Your task to perform on an android device: star an email in the gmail app Image 0: 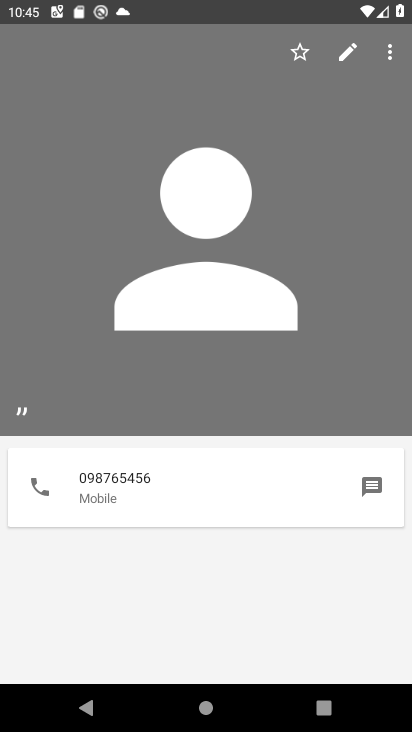
Step 0: press home button
Your task to perform on an android device: star an email in the gmail app Image 1: 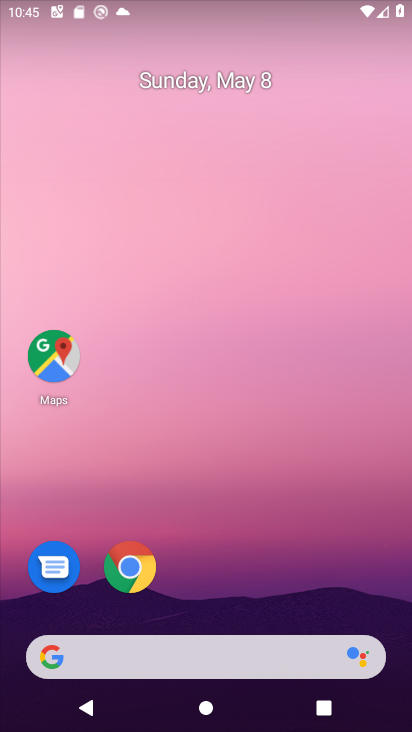
Step 1: drag from (255, 583) to (227, 197)
Your task to perform on an android device: star an email in the gmail app Image 2: 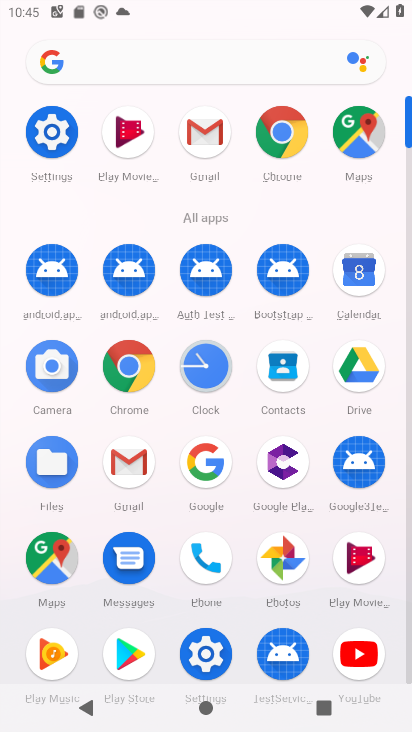
Step 2: click (200, 166)
Your task to perform on an android device: star an email in the gmail app Image 3: 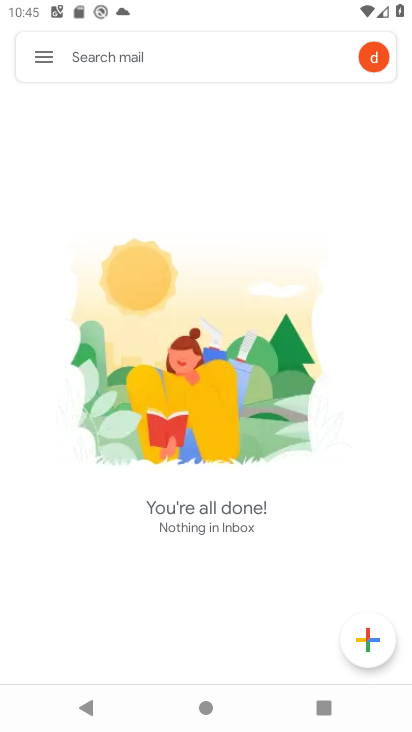
Step 3: click (41, 63)
Your task to perform on an android device: star an email in the gmail app Image 4: 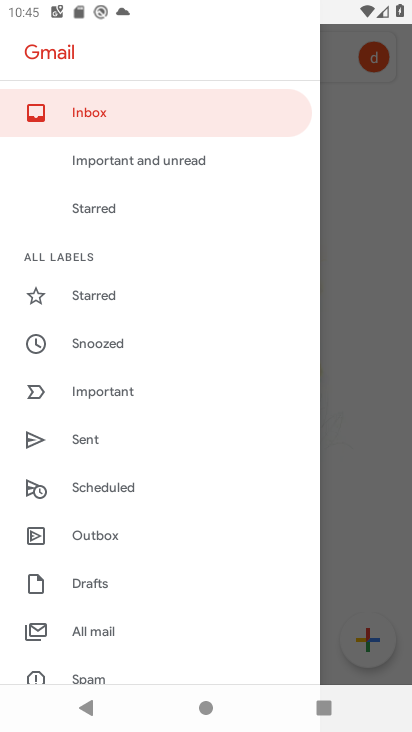
Step 4: drag from (177, 306) to (144, 592)
Your task to perform on an android device: star an email in the gmail app Image 5: 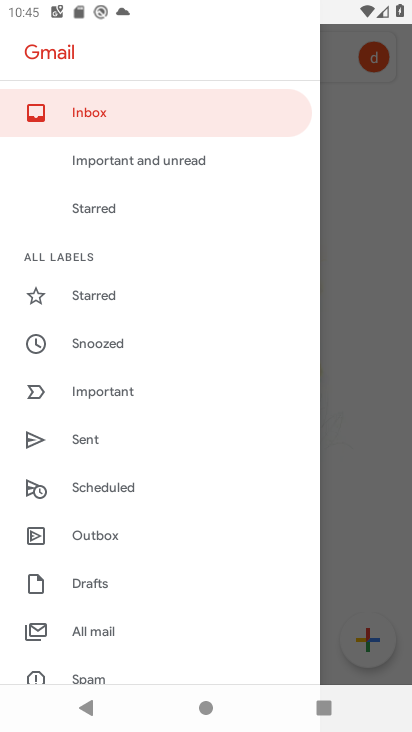
Step 5: drag from (128, 364) to (118, 643)
Your task to perform on an android device: star an email in the gmail app Image 6: 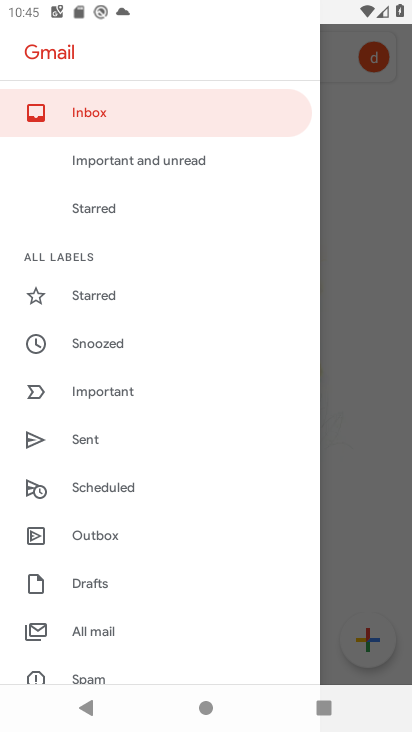
Step 6: drag from (142, 588) to (148, 385)
Your task to perform on an android device: star an email in the gmail app Image 7: 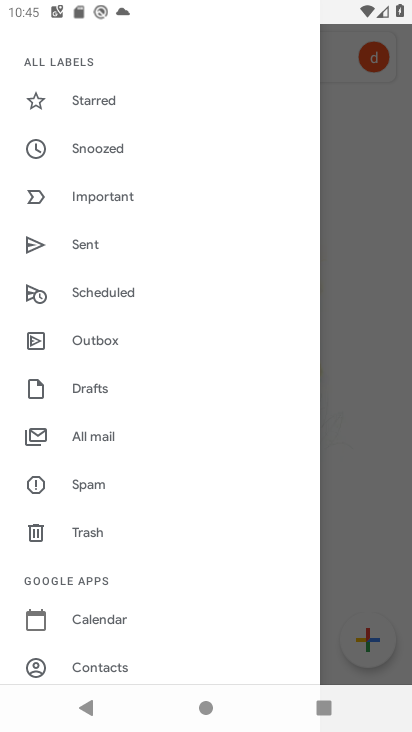
Step 7: click (73, 443)
Your task to perform on an android device: star an email in the gmail app Image 8: 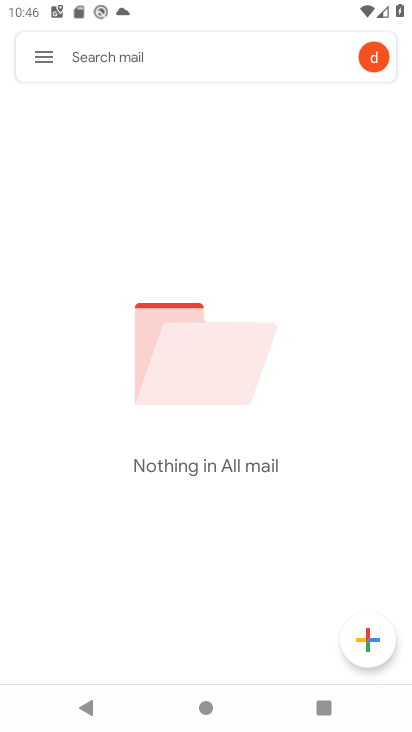
Step 8: task complete